Your task to perform on an android device: check the backup settings in the google photos Image 0: 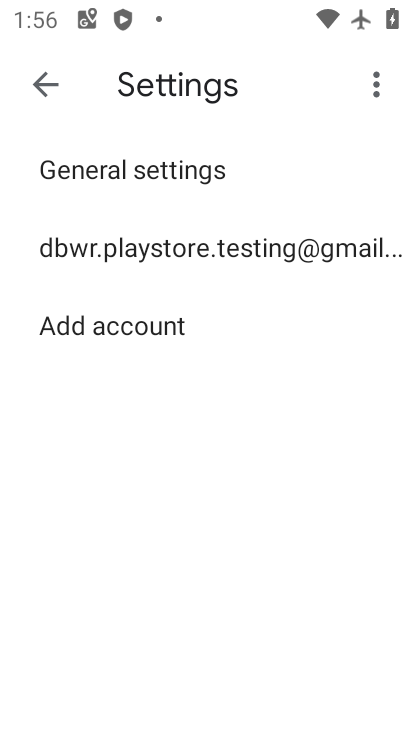
Step 0: press home button
Your task to perform on an android device: check the backup settings in the google photos Image 1: 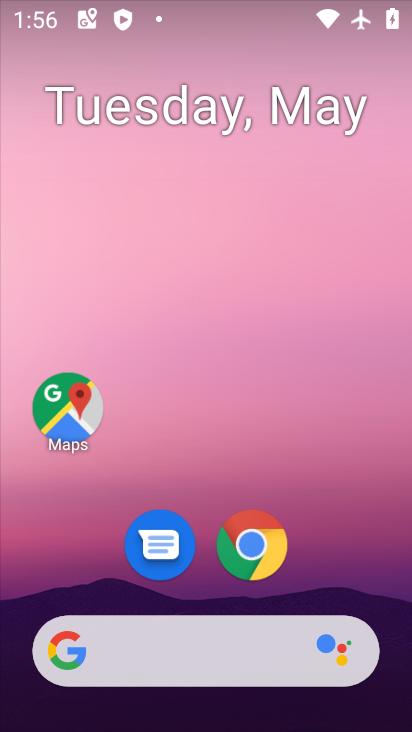
Step 1: drag from (399, 598) to (340, 30)
Your task to perform on an android device: check the backup settings in the google photos Image 2: 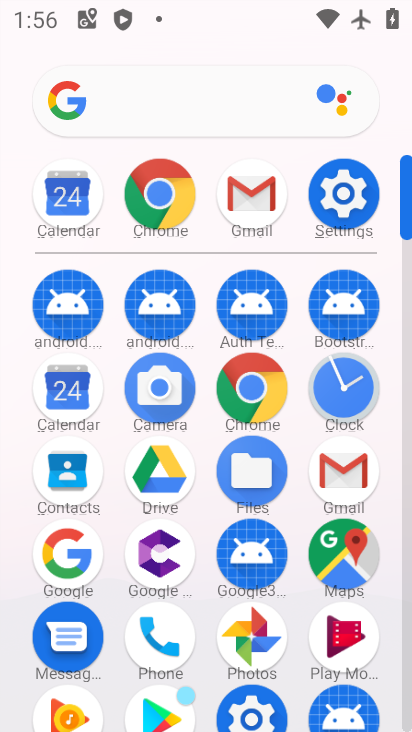
Step 2: click (406, 688)
Your task to perform on an android device: check the backup settings in the google photos Image 3: 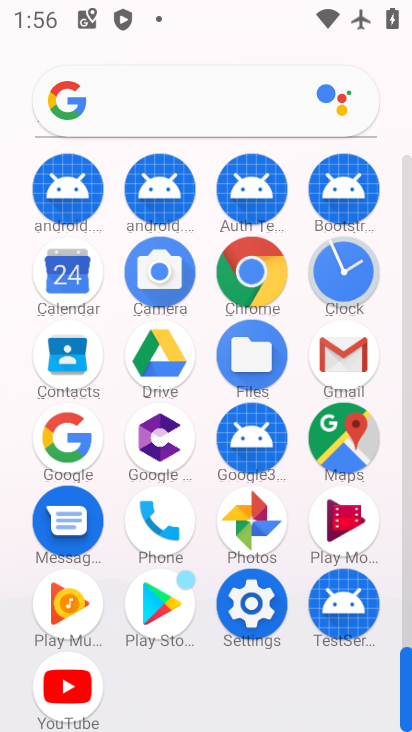
Step 3: click (251, 520)
Your task to perform on an android device: check the backup settings in the google photos Image 4: 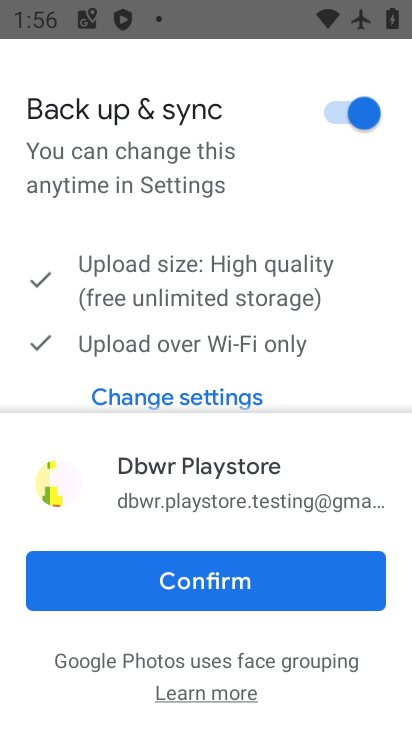
Step 4: click (201, 585)
Your task to perform on an android device: check the backup settings in the google photos Image 5: 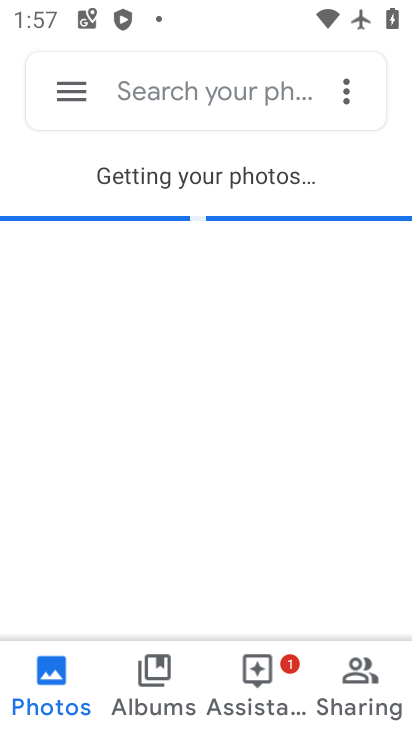
Step 5: click (71, 95)
Your task to perform on an android device: check the backup settings in the google photos Image 6: 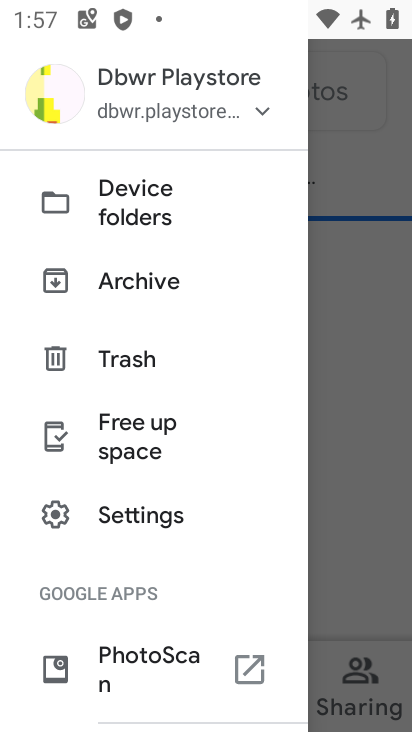
Step 6: click (130, 507)
Your task to perform on an android device: check the backup settings in the google photos Image 7: 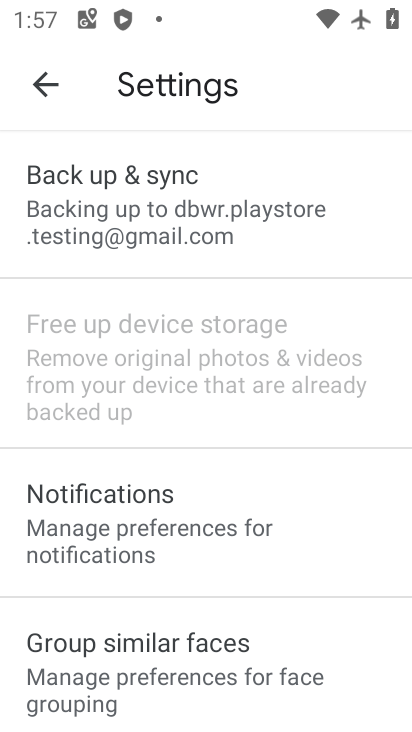
Step 7: click (115, 195)
Your task to perform on an android device: check the backup settings in the google photos Image 8: 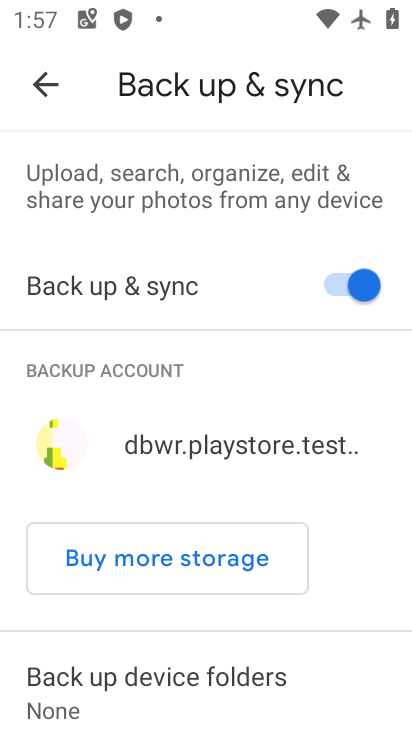
Step 8: task complete